Your task to perform on an android device: Is it going to rain this weekend? Image 0: 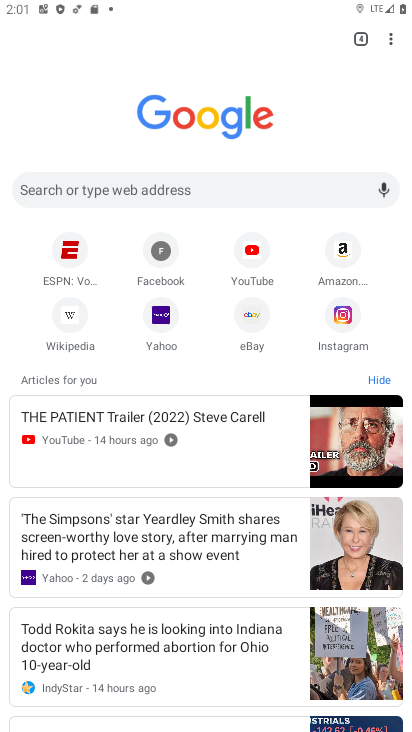
Step 0: press home button
Your task to perform on an android device: Is it going to rain this weekend? Image 1: 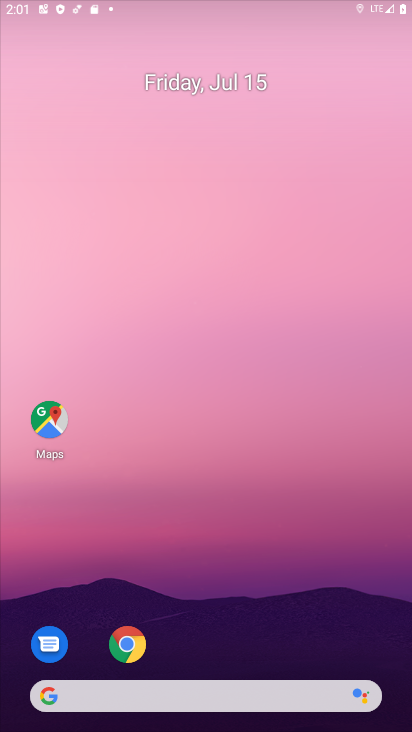
Step 1: drag from (362, 678) to (336, 57)
Your task to perform on an android device: Is it going to rain this weekend? Image 2: 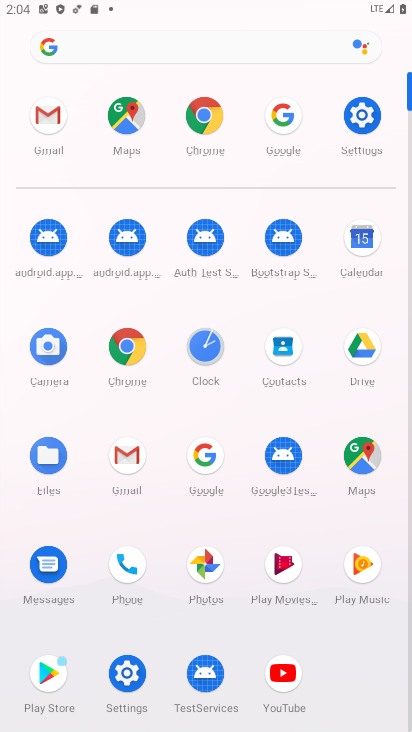
Step 2: click (205, 488)
Your task to perform on an android device: Is it going to rain this weekend? Image 3: 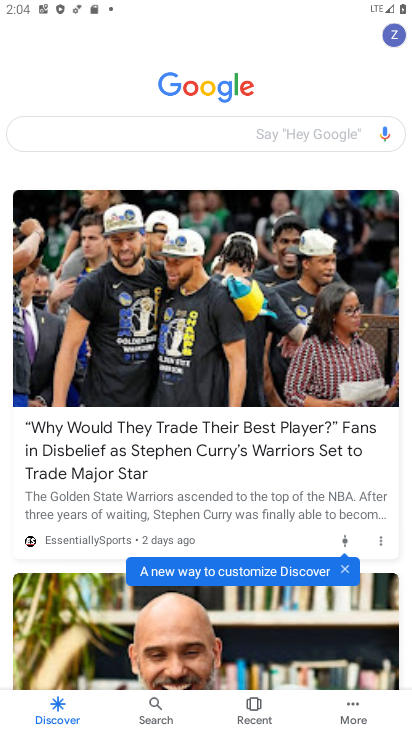
Step 3: click (146, 135)
Your task to perform on an android device: Is it going to rain this weekend? Image 4: 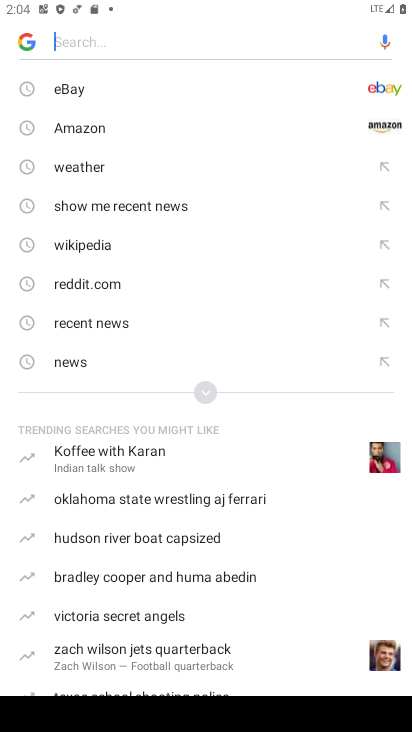
Step 4: type "Is it going to rain this weekend?"
Your task to perform on an android device: Is it going to rain this weekend? Image 5: 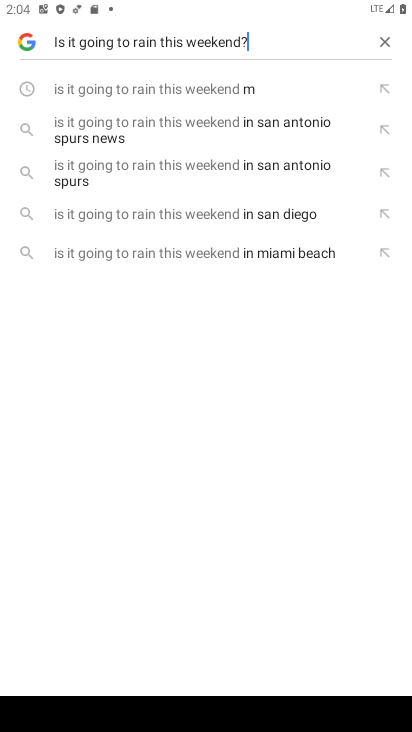
Step 5: click (147, 82)
Your task to perform on an android device: Is it going to rain this weekend? Image 6: 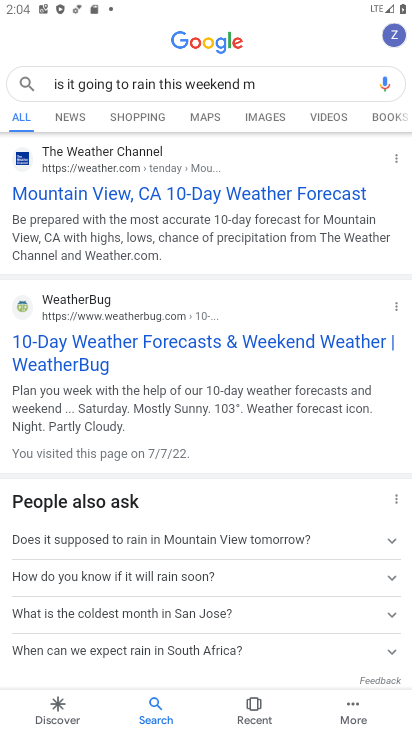
Step 6: task complete